Your task to perform on an android device: toggle wifi Image 0: 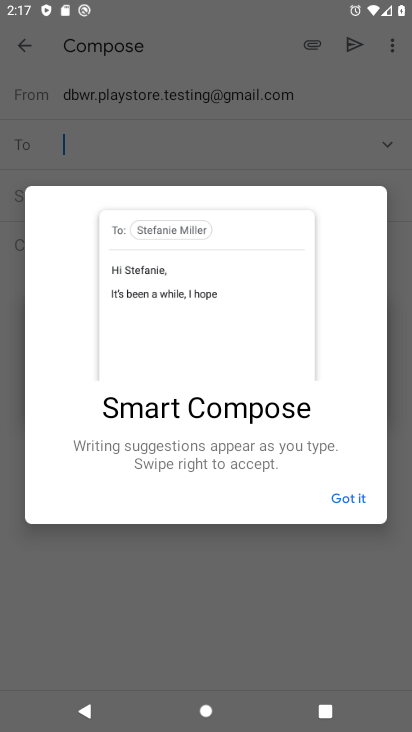
Step 0: press home button
Your task to perform on an android device: toggle wifi Image 1: 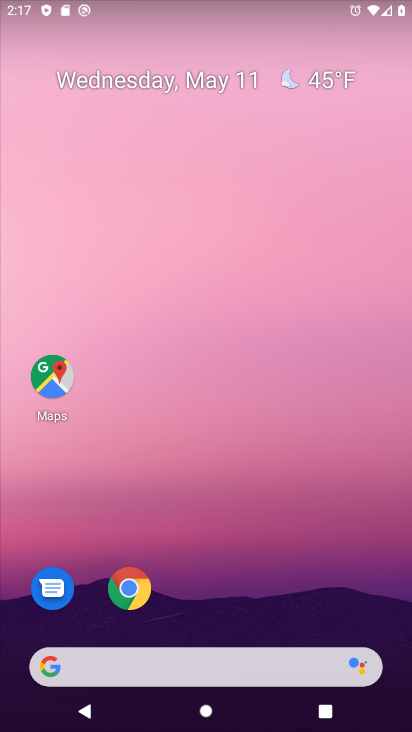
Step 1: drag from (173, 613) to (232, 145)
Your task to perform on an android device: toggle wifi Image 2: 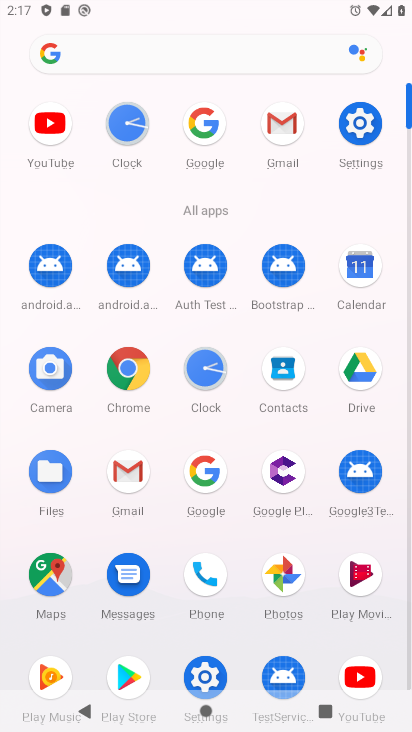
Step 2: click (343, 139)
Your task to perform on an android device: toggle wifi Image 3: 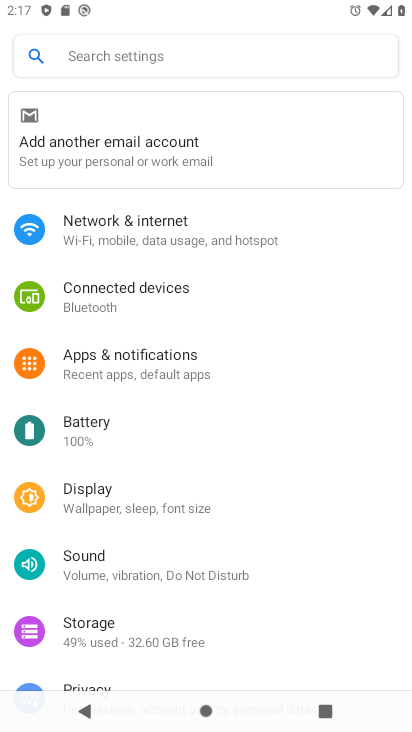
Step 3: click (222, 225)
Your task to perform on an android device: toggle wifi Image 4: 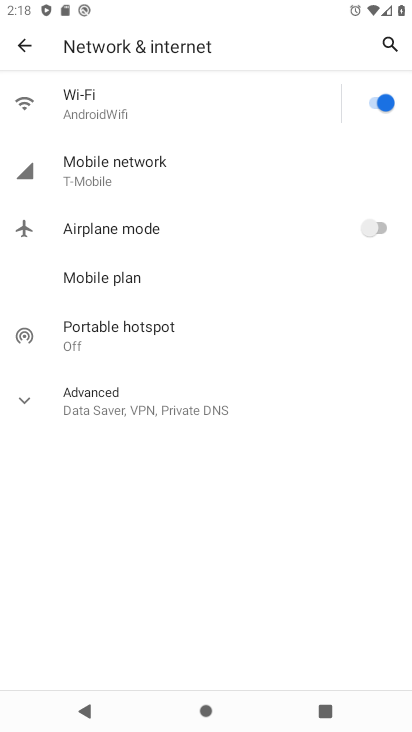
Step 4: click (371, 113)
Your task to perform on an android device: toggle wifi Image 5: 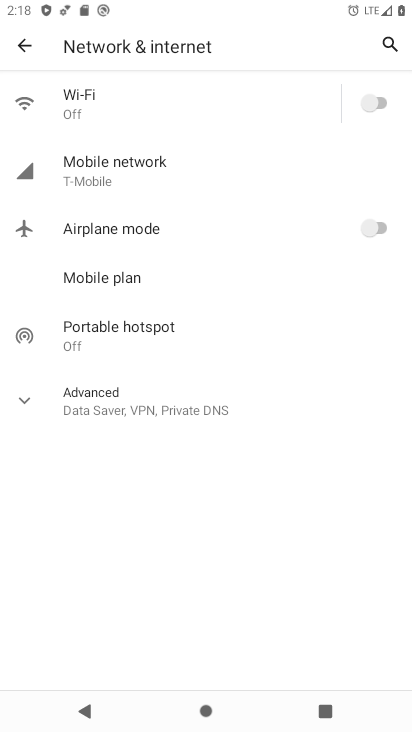
Step 5: task complete